Your task to perform on an android device: all mails in gmail Image 0: 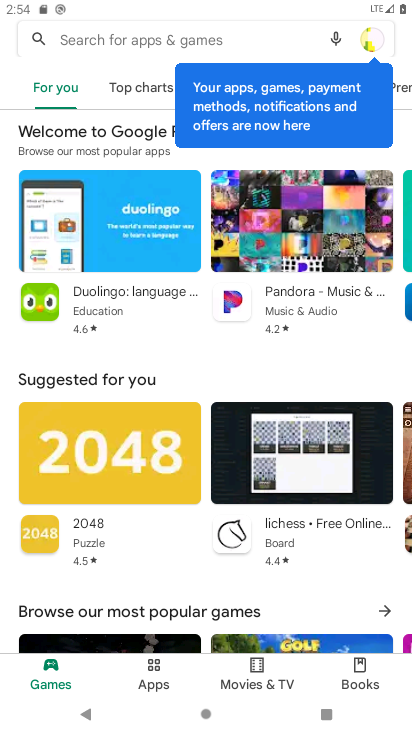
Step 0: press home button
Your task to perform on an android device: all mails in gmail Image 1: 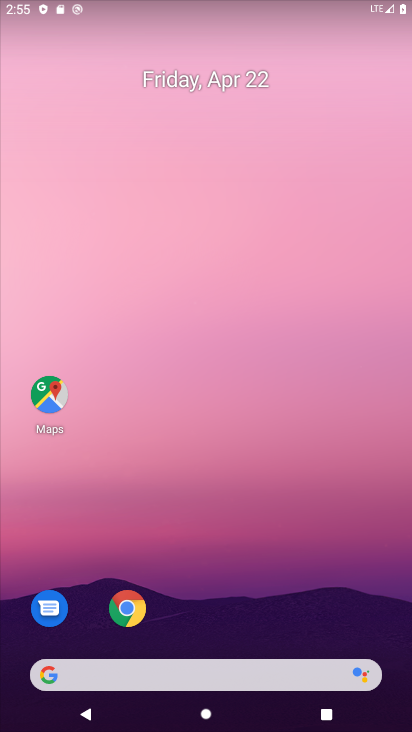
Step 1: drag from (272, 647) to (189, 206)
Your task to perform on an android device: all mails in gmail Image 2: 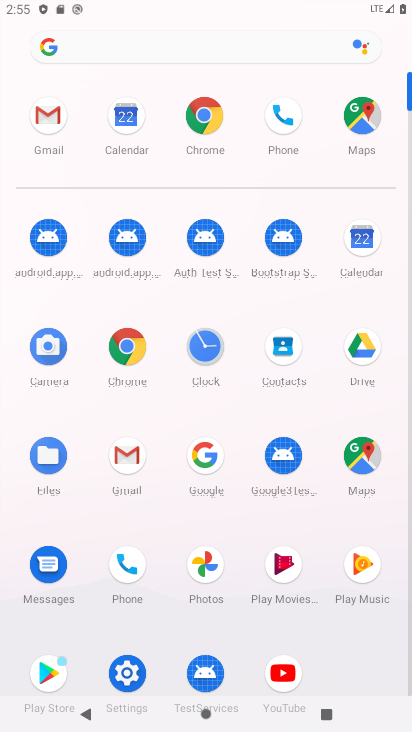
Step 2: click (52, 122)
Your task to perform on an android device: all mails in gmail Image 3: 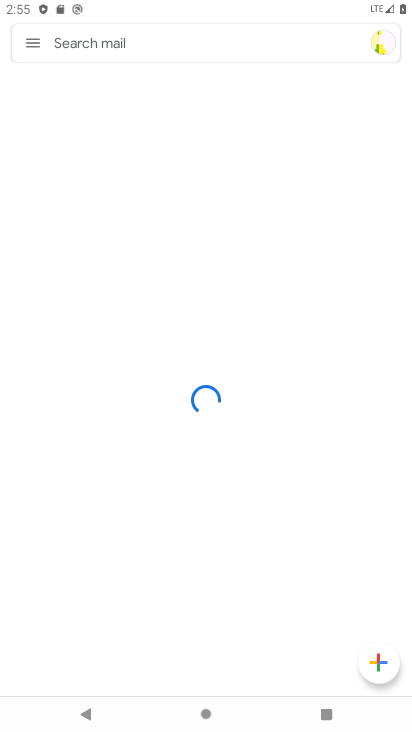
Step 3: click (31, 34)
Your task to perform on an android device: all mails in gmail Image 4: 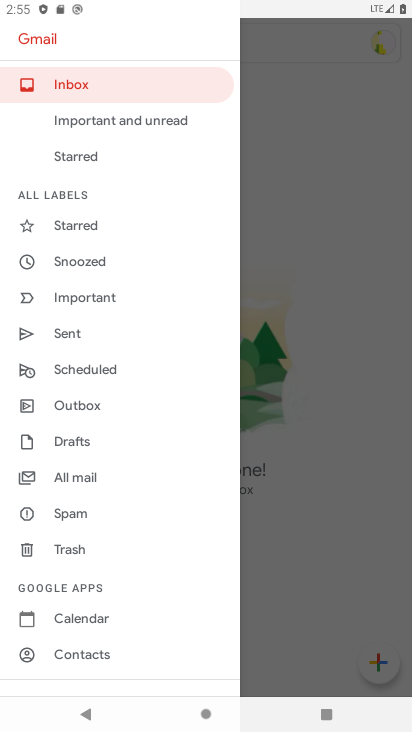
Step 4: click (93, 476)
Your task to perform on an android device: all mails in gmail Image 5: 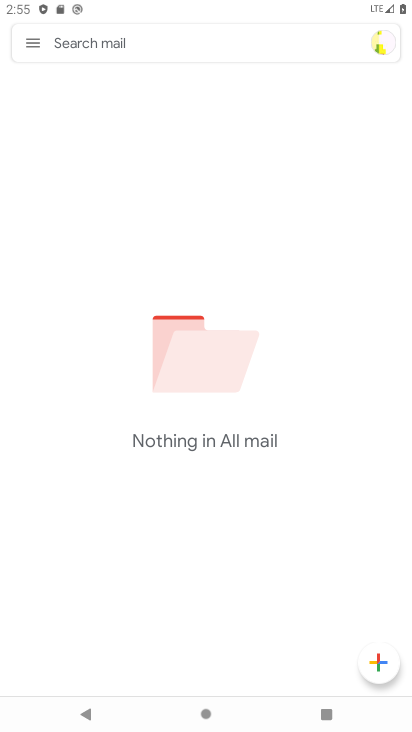
Step 5: task complete